Your task to perform on an android device: Go to Android settings Image 0: 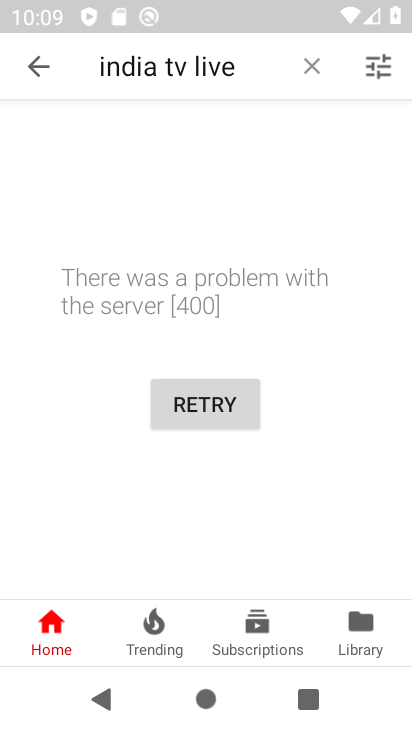
Step 0: press home button
Your task to perform on an android device: Go to Android settings Image 1: 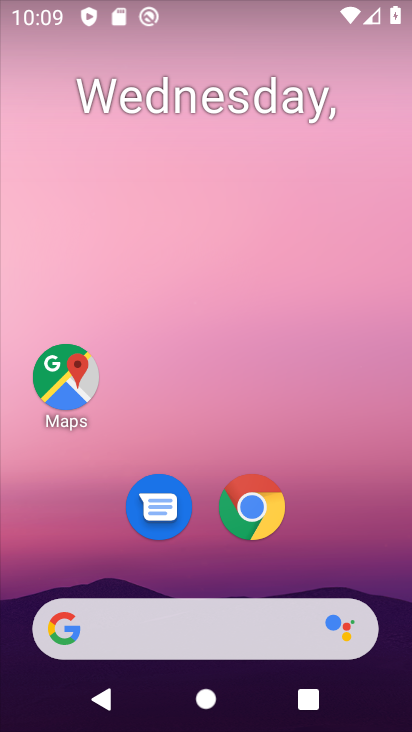
Step 1: drag from (316, 558) to (280, 268)
Your task to perform on an android device: Go to Android settings Image 2: 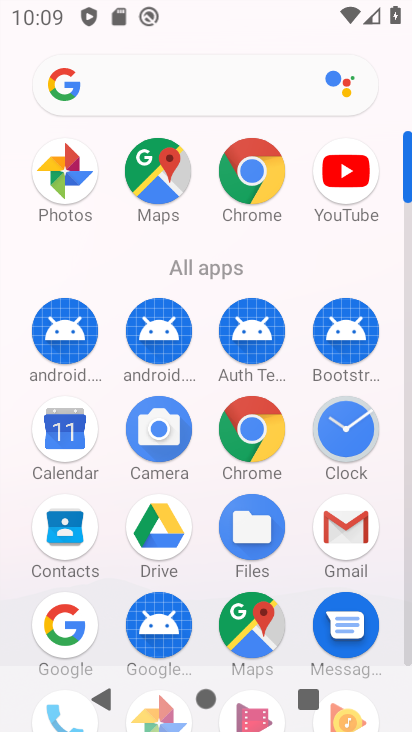
Step 2: drag from (291, 542) to (298, 309)
Your task to perform on an android device: Go to Android settings Image 3: 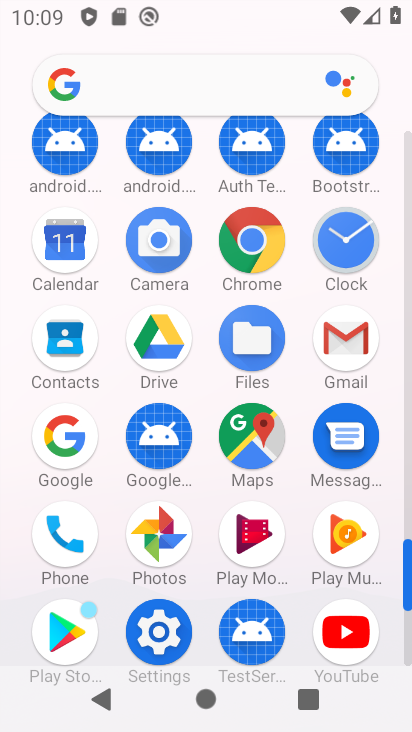
Step 3: click (158, 633)
Your task to perform on an android device: Go to Android settings Image 4: 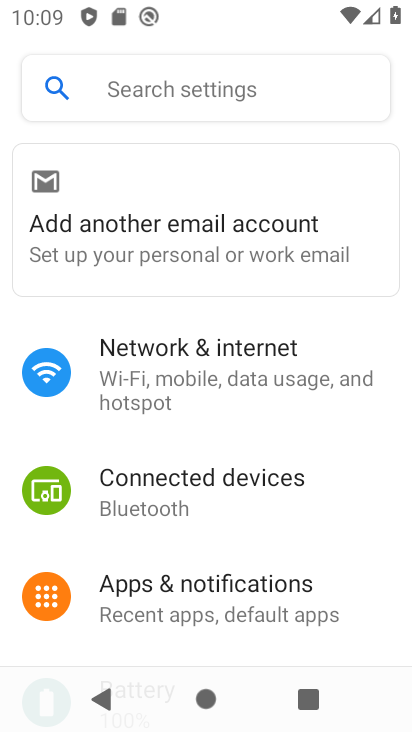
Step 4: task complete